Your task to perform on an android device: allow cookies in the chrome app Image 0: 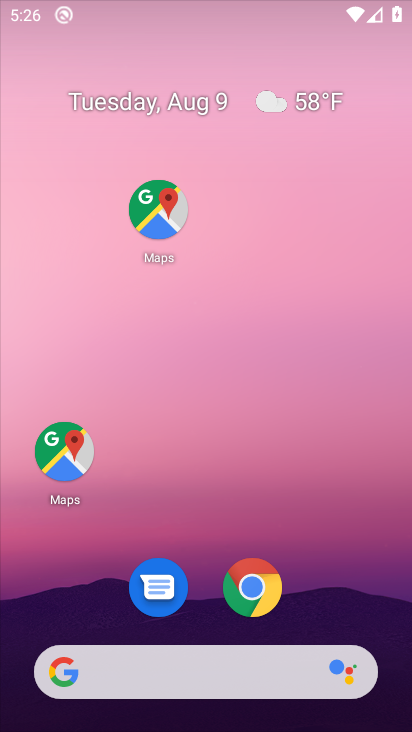
Step 0: drag from (213, 561) to (128, 131)
Your task to perform on an android device: allow cookies in the chrome app Image 1: 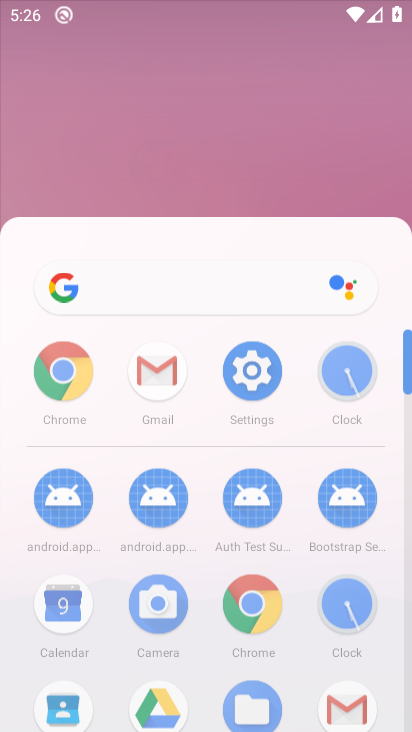
Step 1: drag from (106, 528) to (83, 251)
Your task to perform on an android device: allow cookies in the chrome app Image 2: 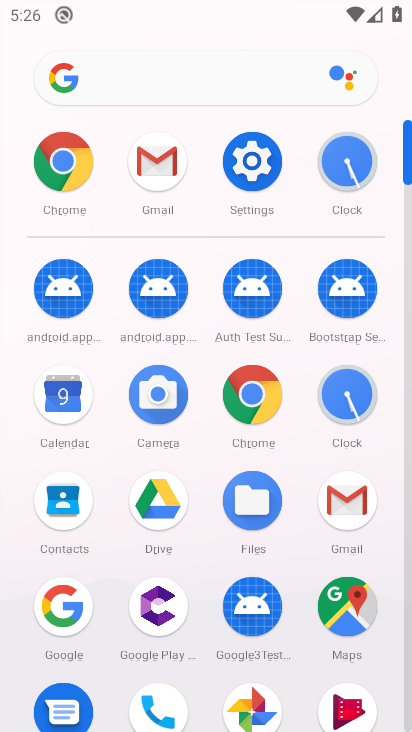
Step 2: click (254, 382)
Your task to perform on an android device: allow cookies in the chrome app Image 3: 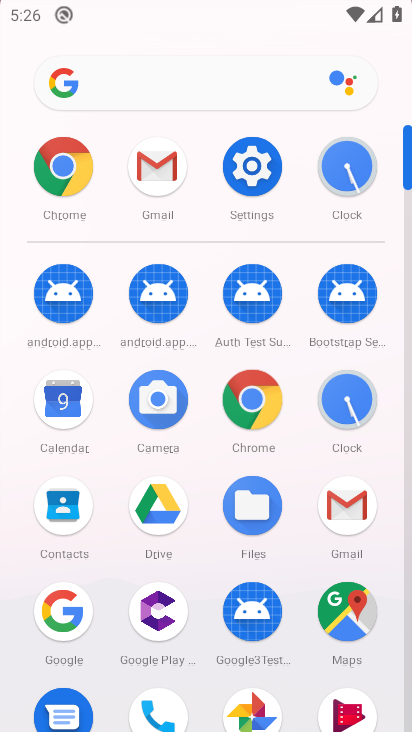
Step 3: click (254, 397)
Your task to perform on an android device: allow cookies in the chrome app Image 4: 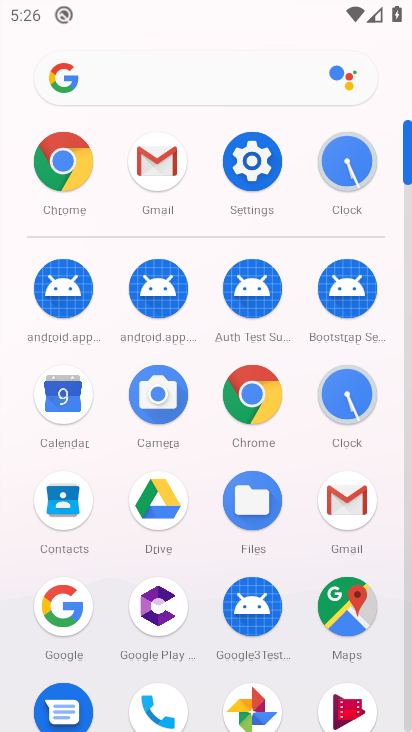
Step 4: click (254, 399)
Your task to perform on an android device: allow cookies in the chrome app Image 5: 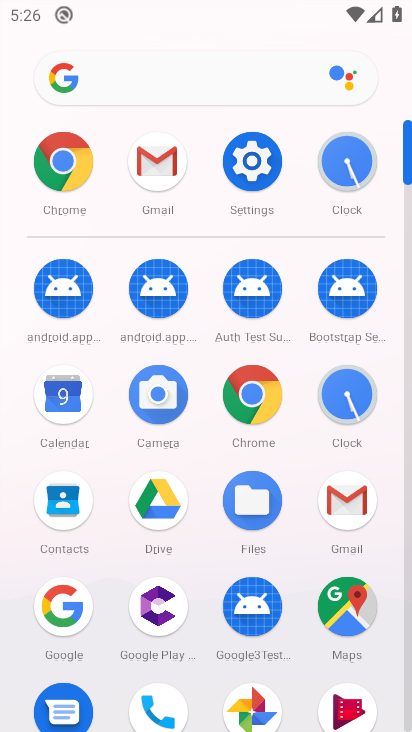
Step 5: click (256, 401)
Your task to perform on an android device: allow cookies in the chrome app Image 6: 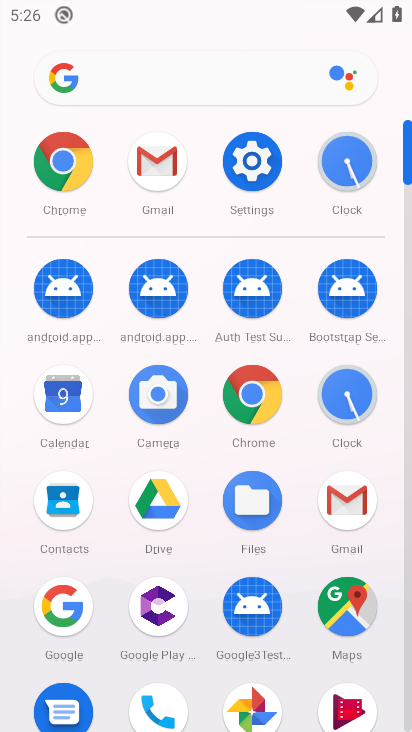
Step 6: click (257, 402)
Your task to perform on an android device: allow cookies in the chrome app Image 7: 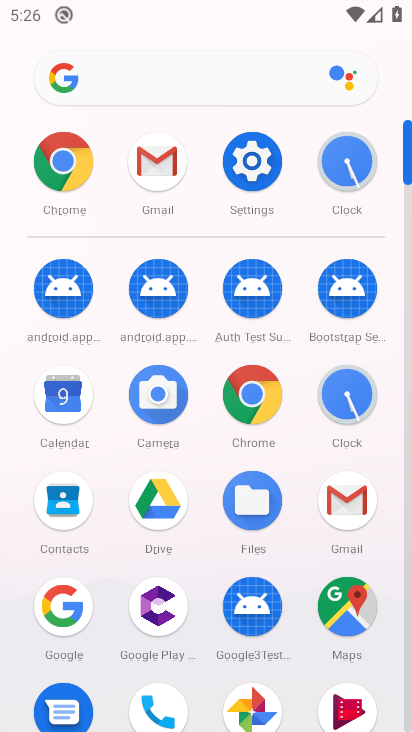
Step 7: click (258, 403)
Your task to perform on an android device: allow cookies in the chrome app Image 8: 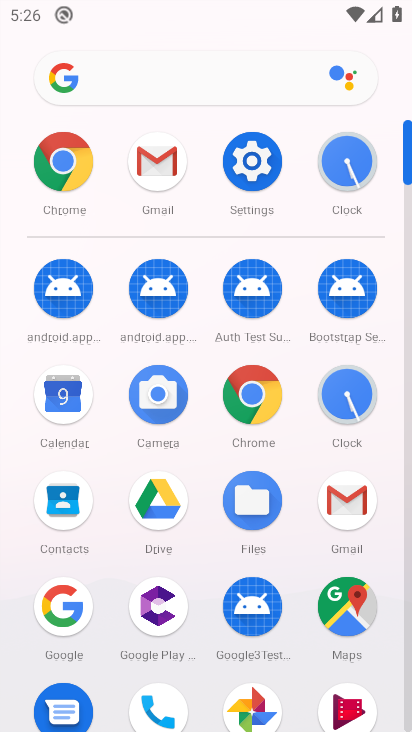
Step 8: click (258, 393)
Your task to perform on an android device: allow cookies in the chrome app Image 9: 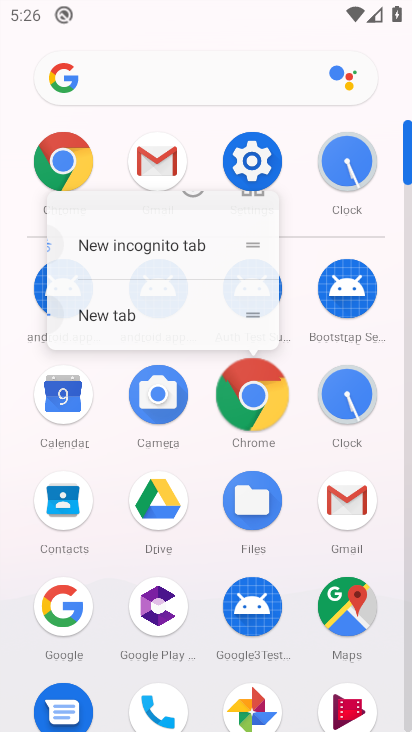
Step 9: click (258, 393)
Your task to perform on an android device: allow cookies in the chrome app Image 10: 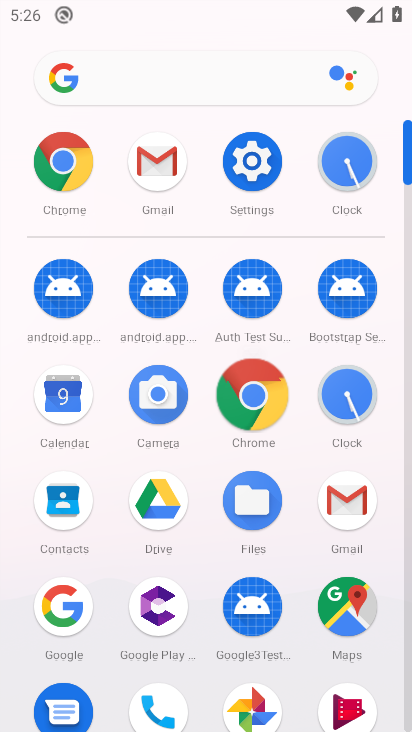
Step 10: click (261, 394)
Your task to perform on an android device: allow cookies in the chrome app Image 11: 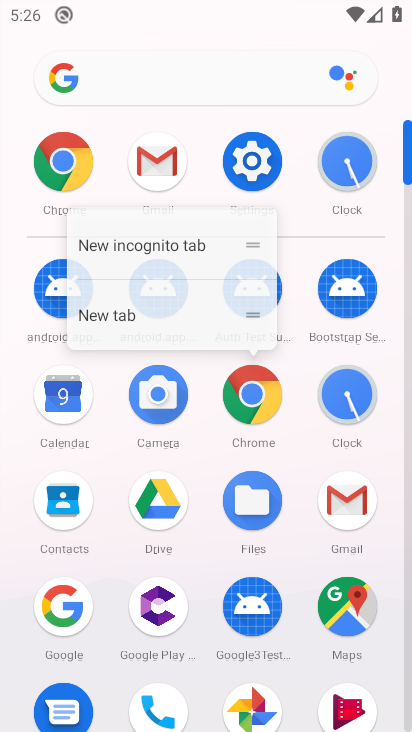
Step 11: click (261, 394)
Your task to perform on an android device: allow cookies in the chrome app Image 12: 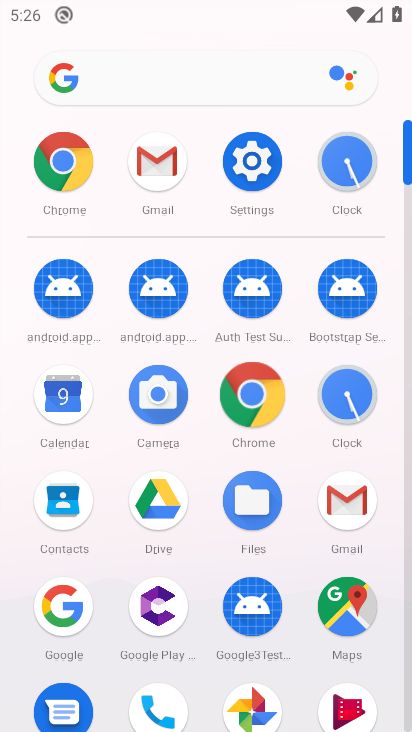
Step 12: click (264, 396)
Your task to perform on an android device: allow cookies in the chrome app Image 13: 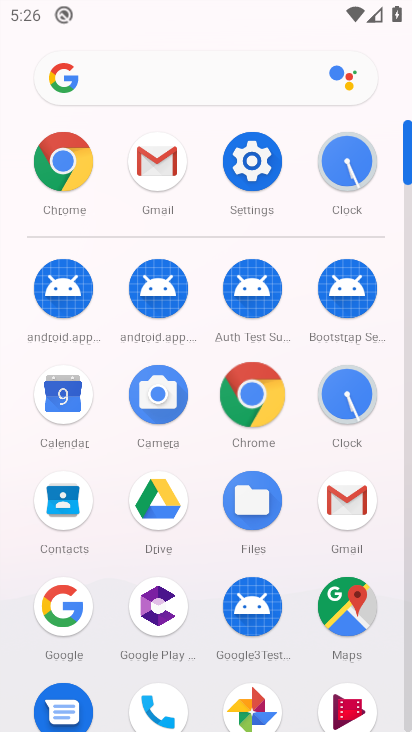
Step 13: click (265, 399)
Your task to perform on an android device: allow cookies in the chrome app Image 14: 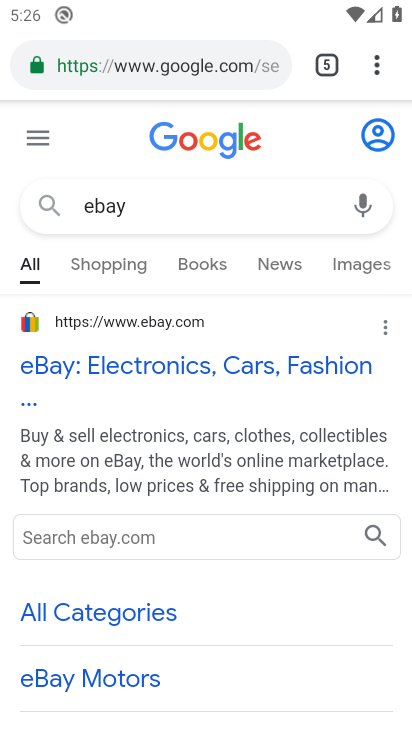
Step 14: click (371, 65)
Your task to perform on an android device: allow cookies in the chrome app Image 15: 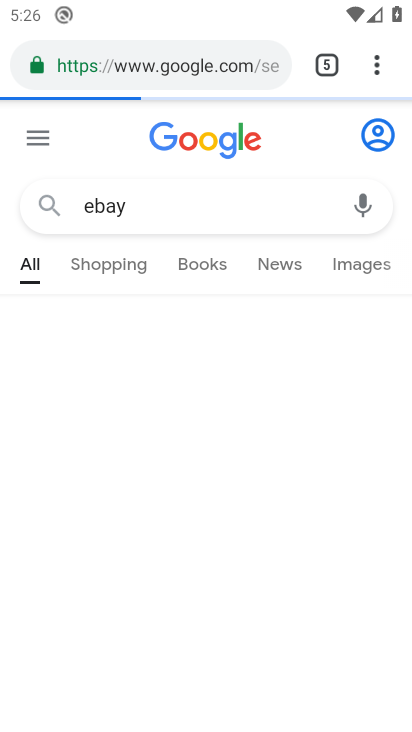
Step 15: drag from (344, 132) to (236, 529)
Your task to perform on an android device: allow cookies in the chrome app Image 16: 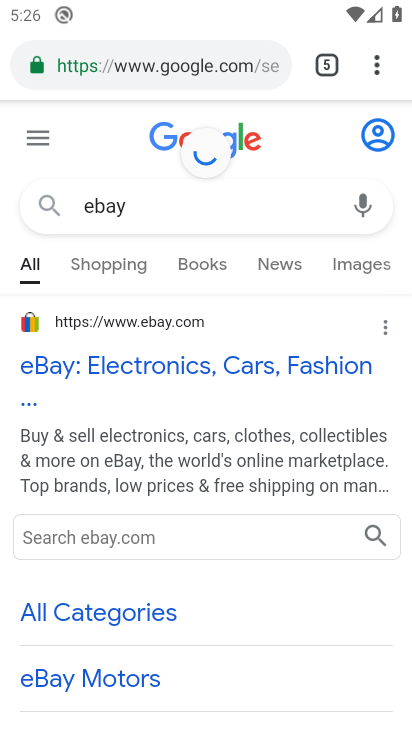
Step 16: click (374, 63)
Your task to perform on an android device: allow cookies in the chrome app Image 17: 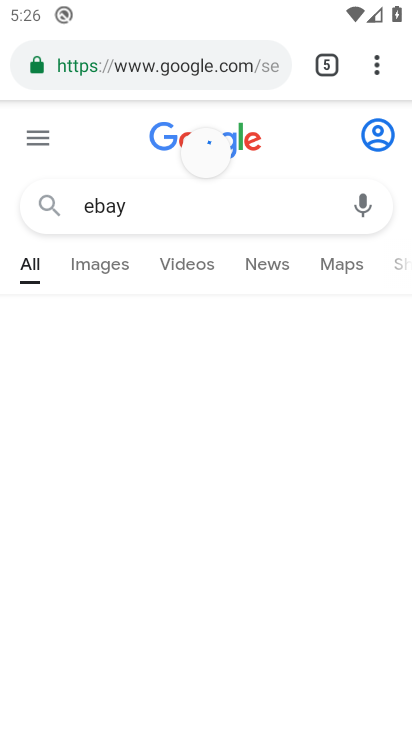
Step 17: click (375, 62)
Your task to perform on an android device: allow cookies in the chrome app Image 18: 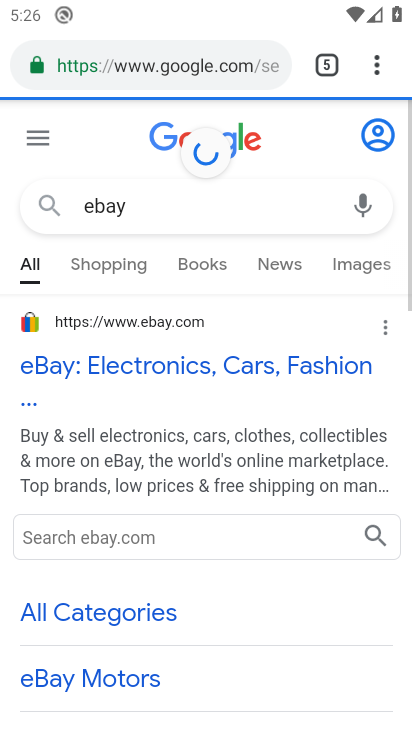
Step 18: click (376, 64)
Your task to perform on an android device: allow cookies in the chrome app Image 19: 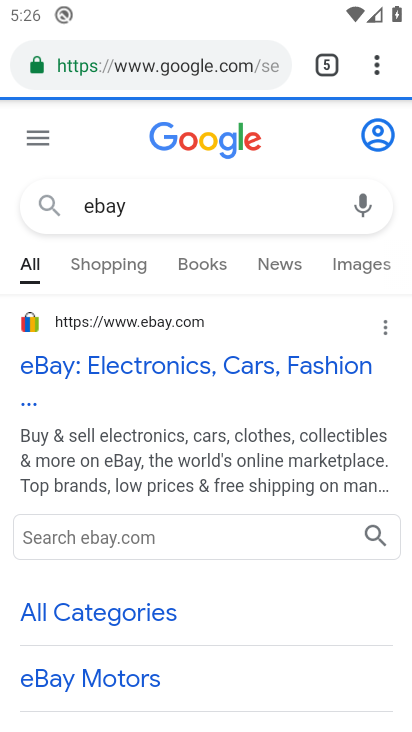
Step 19: drag from (376, 64) to (160, 364)
Your task to perform on an android device: allow cookies in the chrome app Image 20: 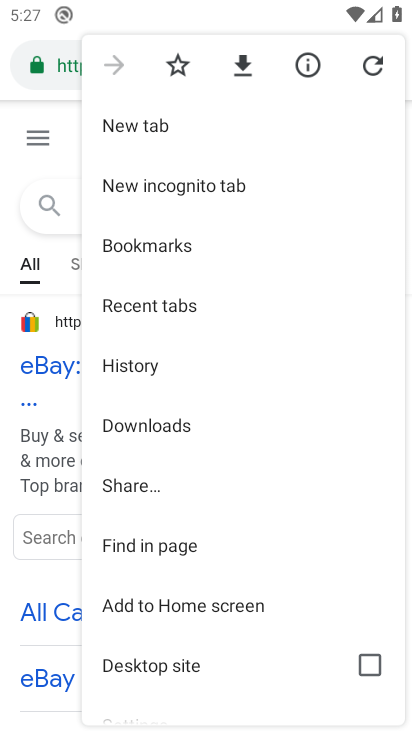
Step 20: drag from (132, 581) to (131, 293)
Your task to perform on an android device: allow cookies in the chrome app Image 21: 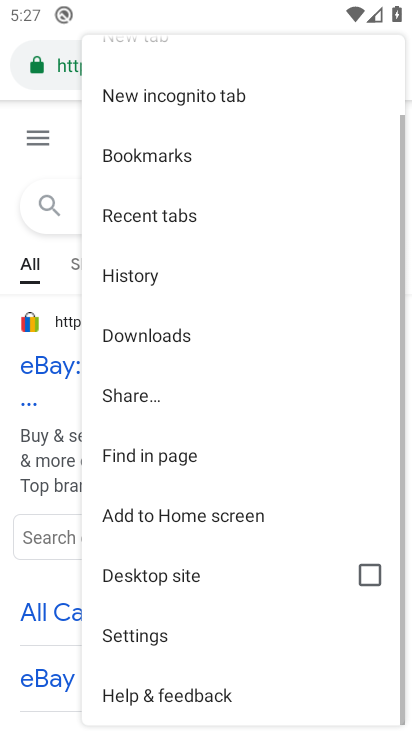
Step 21: drag from (128, 627) to (134, 285)
Your task to perform on an android device: allow cookies in the chrome app Image 22: 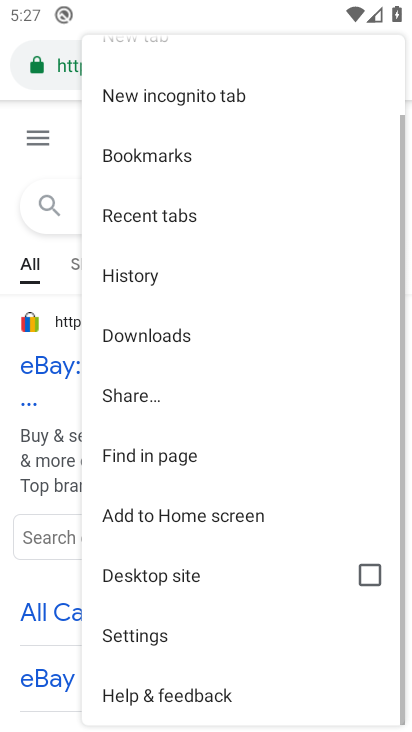
Step 22: click (128, 638)
Your task to perform on an android device: allow cookies in the chrome app Image 23: 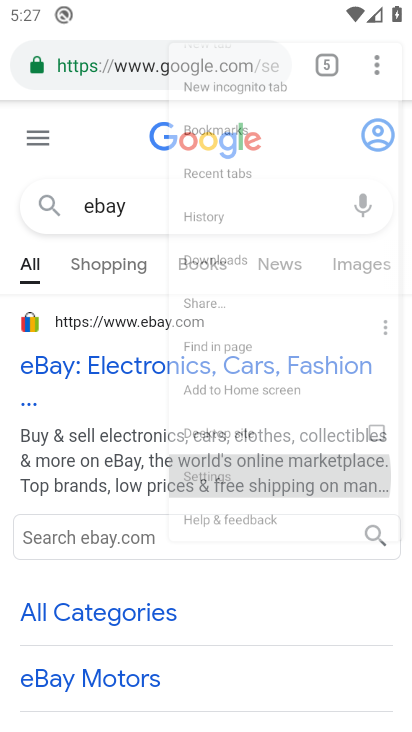
Step 23: click (130, 636)
Your task to perform on an android device: allow cookies in the chrome app Image 24: 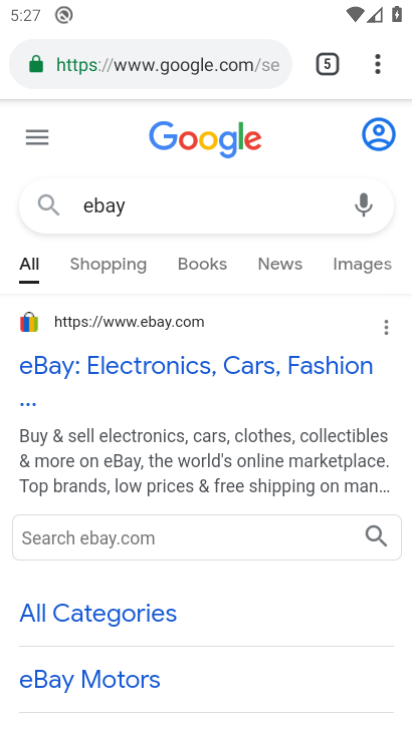
Step 24: click (133, 636)
Your task to perform on an android device: allow cookies in the chrome app Image 25: 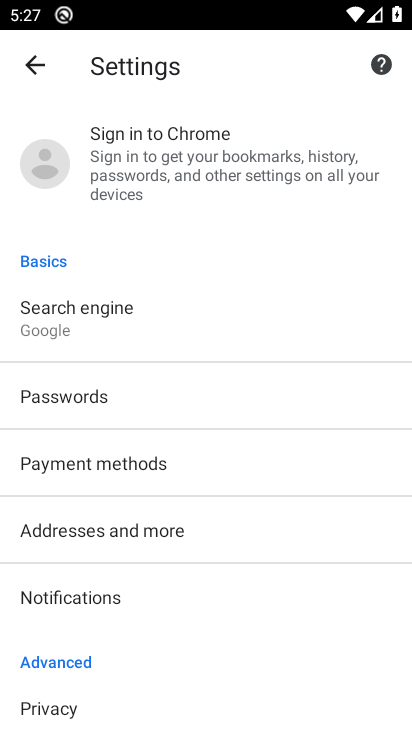
Step 25: drag from (87, 600) to (87, 218)
Your task to perform on an android device: allow cookies in the chrome app Image 26: 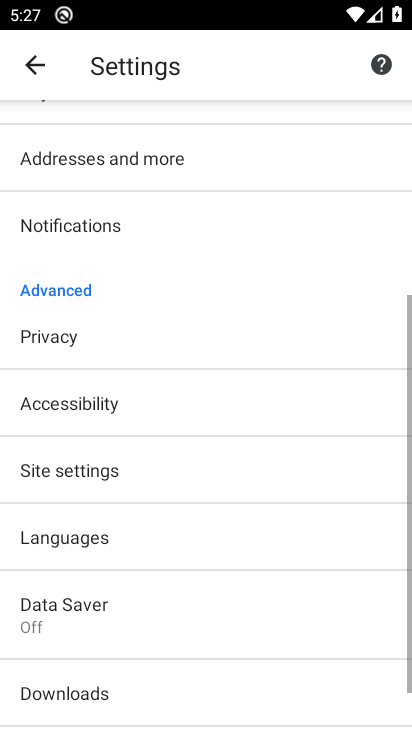
Step 26: drag from (95, 530) to (88, 208)
Your task to perform on an android device: allow cookies in the chrome app Image 27: 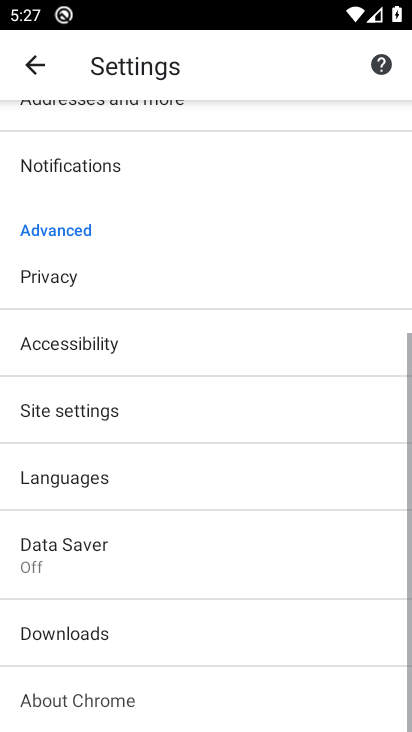
Step 27: drag from (123, 533) to (123, 233)
Your task to perform on an android device: allow cookies in the chrome app Image 28: 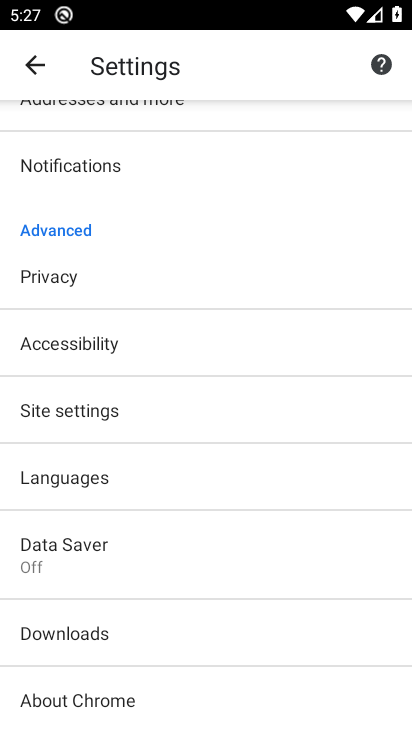
Step 28: click (57, 401)
Your task to perform on an android device: allow cookies in the chrome app Image 29: 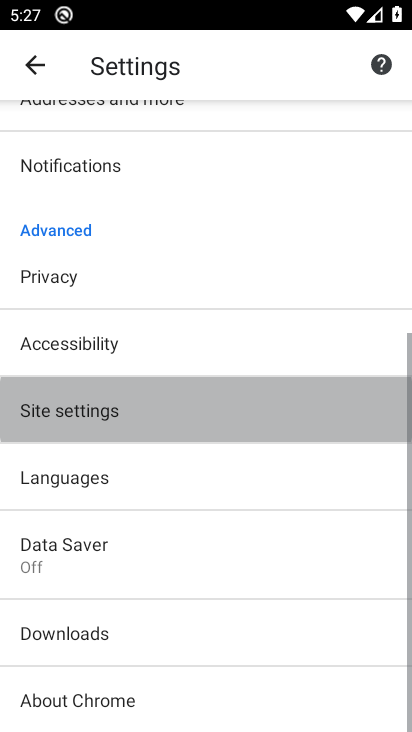
Step 29: click (57, 402)
Your task to perform on an android device: allow cookies in the chrome app Image 30: 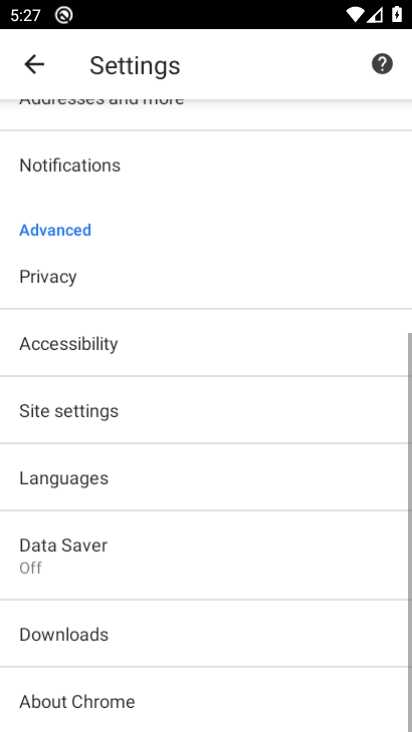
Step 30: click (57, 403)
Your task to perform on an android device: allow cookies in the chrome app Image 31: 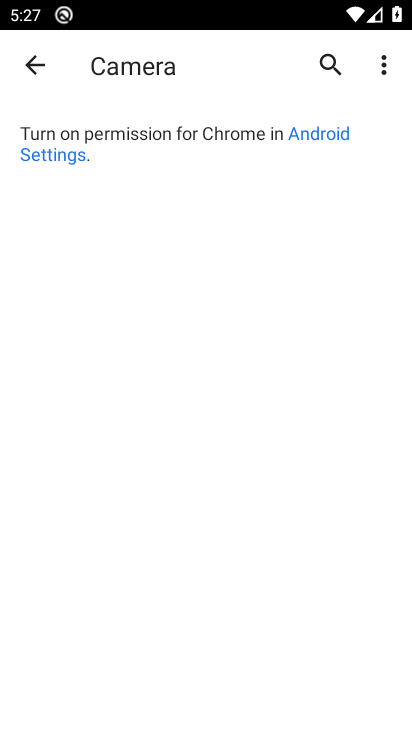
Step 31: click (29, 60)
Your task to perform on an android device: allow cookies in the chrome app Image 32: 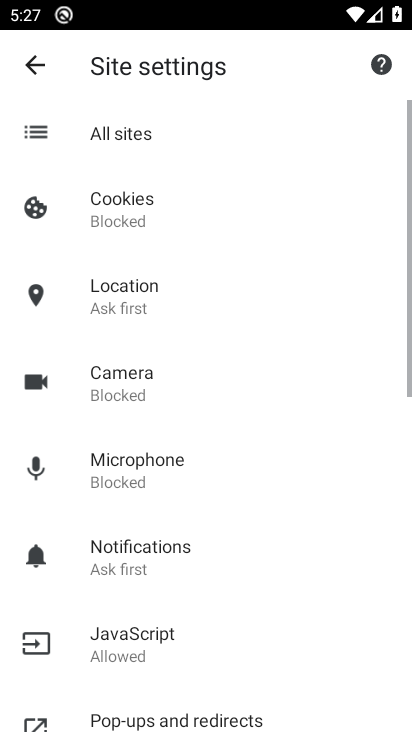
Step 32: click (129, 193)
Your task to perform on an android device: allow cookies in the chrome app Image 33: 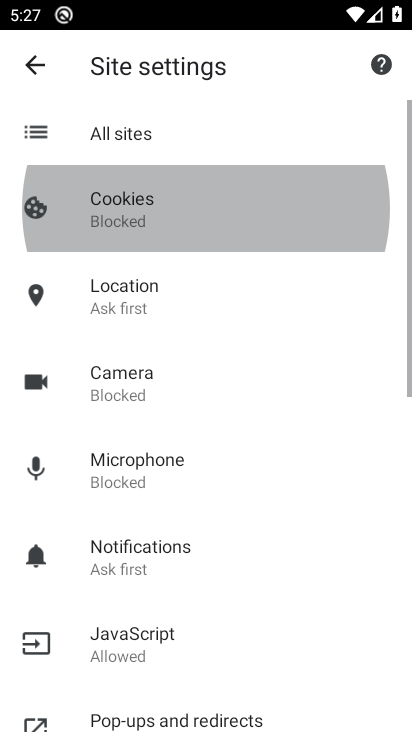
Step 33: click (129, 194)
Your task to perform on an android device: allow cookies in the chrome app Image 34: 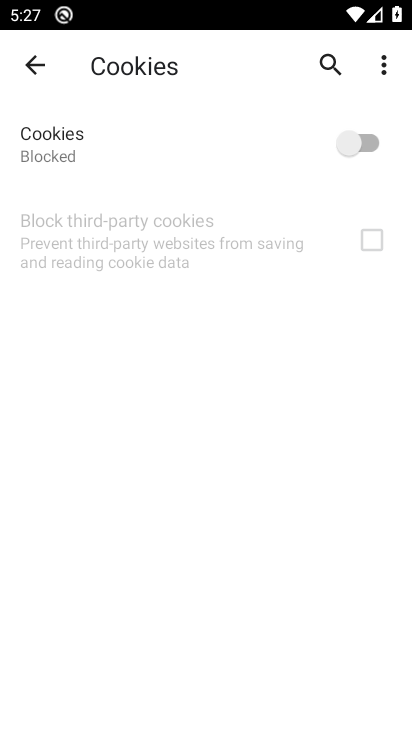
Step 34: click (348, 139)
Your task to perform on an android device: allow cookies in the chrome app Image 35: 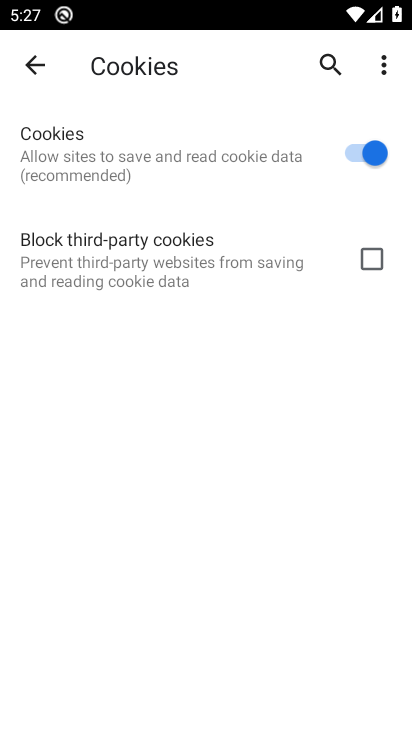
Step 35: task complete